Your task to perform on an android device: toggle javascript in the chrome app Image 0: 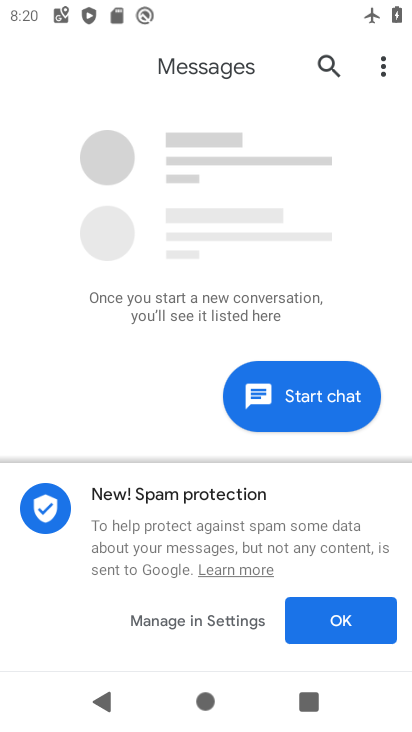
Step 0: press home button
Your task to perform on an android device: toggle javascript in the chrome app Image 1: 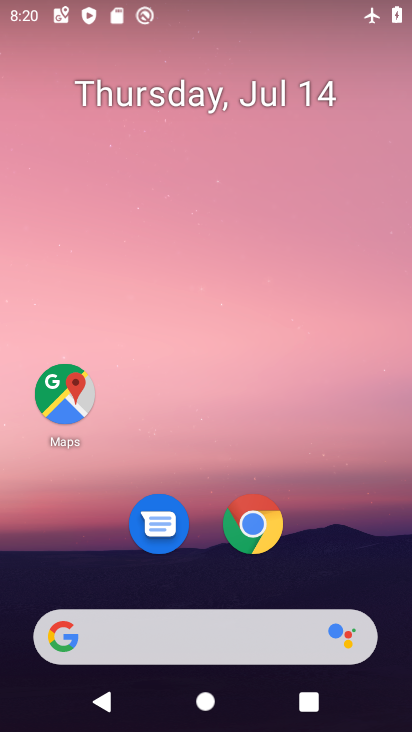
Step 1: click (272, 518)
Your task to perform on an android device: toggle javascript in the chrome app Image 2: 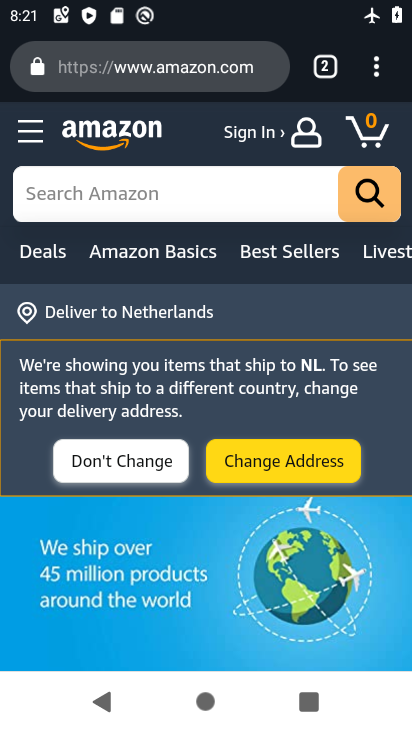
Step 2: click (380, 69)
Your task to perform on an android device: toggle javascript in the chrome app Image 3: 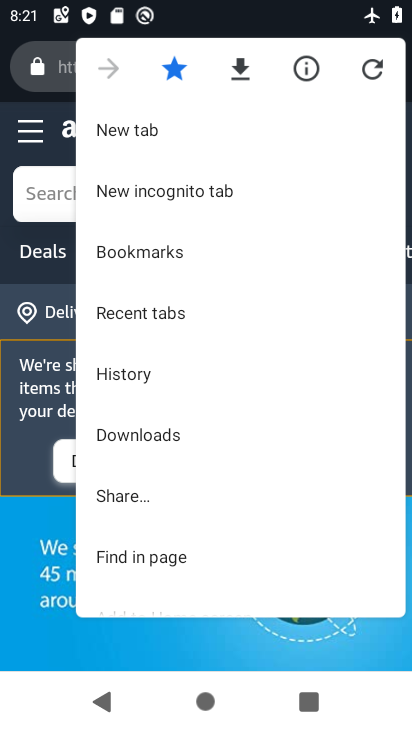
Step 3: drag from (255, 515) to (295, 178)
Your task to perform on an android device: toggle javascript in the chrome app Image 4: 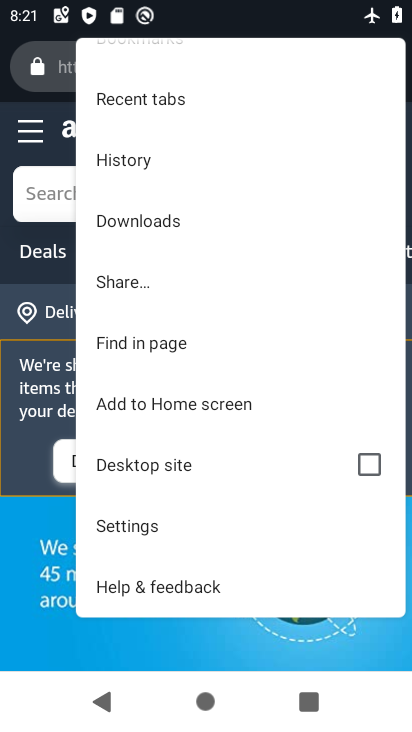
Step 4: click (156, 529)
Your task to perform on an android device: toggle javascript in the chrome app Image 5: 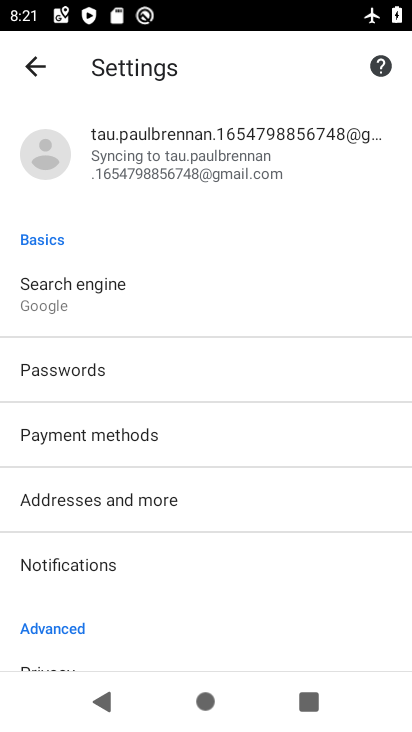
Step 5: drag from (284, 557) to (299, 254)
Your task to perform on an android device: toggle javascript in the chrome app Image 6: 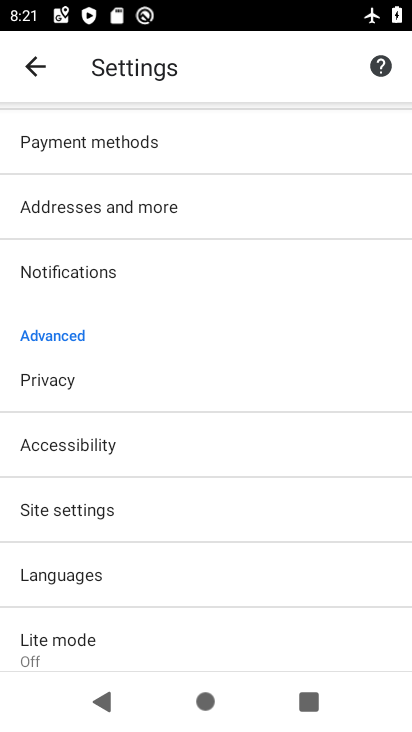
Step 6: click (95, 513)
Your task to perform on an android device: toggle javascript in the chrome app Image 7: 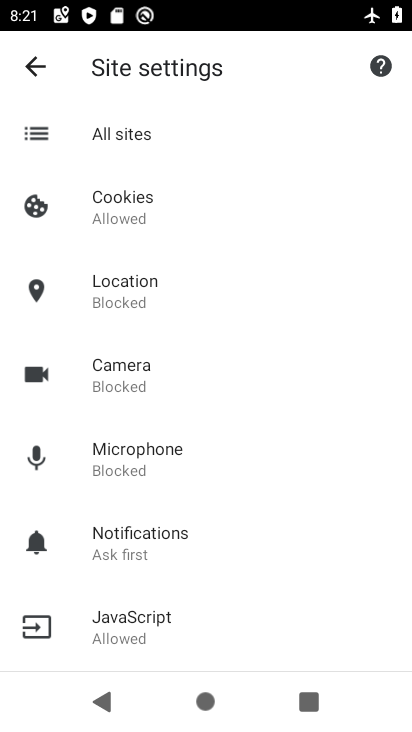
Step 7: click (157, 615)
Your task to perform on an android device: toggle javascript in the chrome app Image 8: 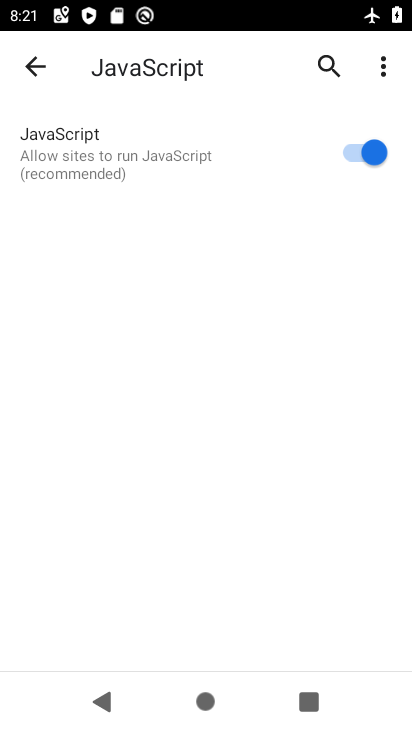
Step 8: click (360, 149)
Your task to perform on an android device: toggle javascript in the chrome app Image 9: 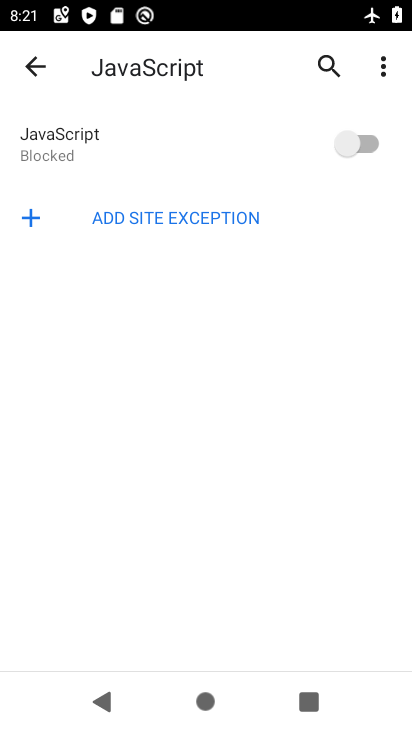
Step 9: task complete